Your task to perform on an android device: Open Google Image 0: 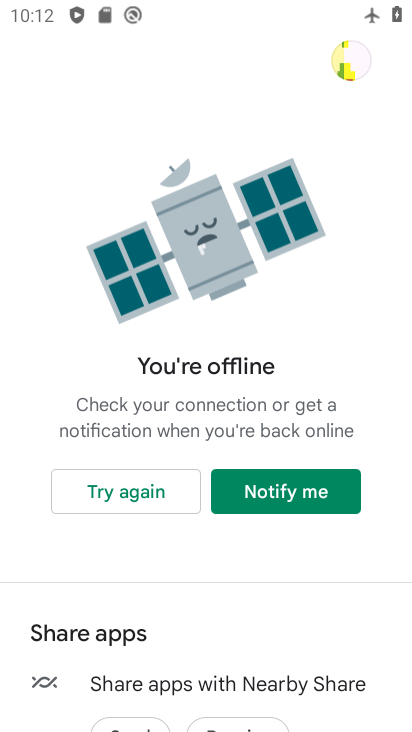
Step 0: press back button
Your task to perform on an android device: Open Google Image 1: 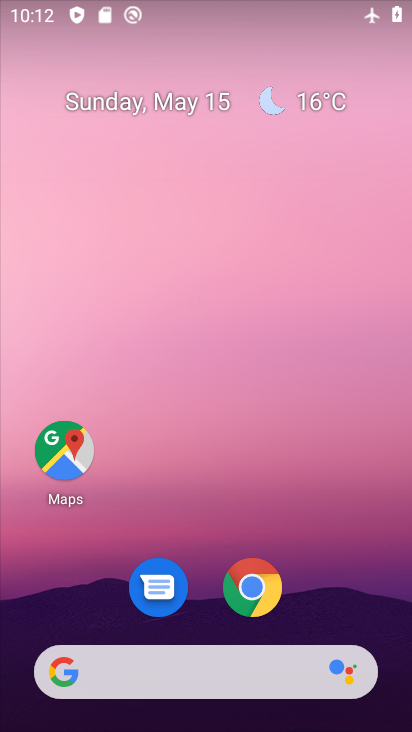
Step 1: click (254, 584)
Your task to perform on an android device: Open Google Image 2: 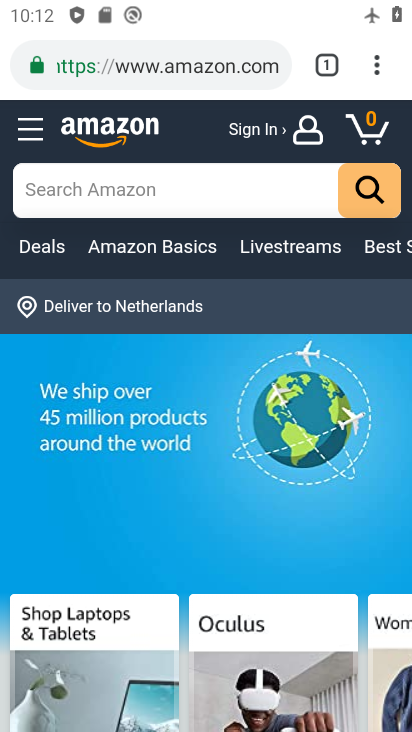
Step 2: click (171, 69)
Your task to perform on an android device: Open Google Image 3: 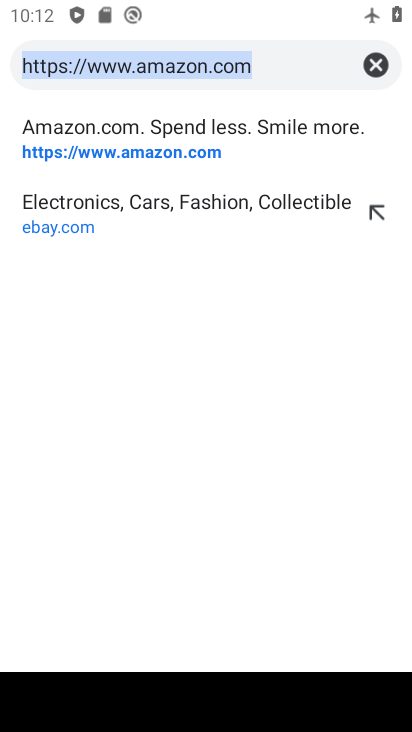
Step 3: click (380, 64)
Your task to perform on an android device: Open Google Image 4: 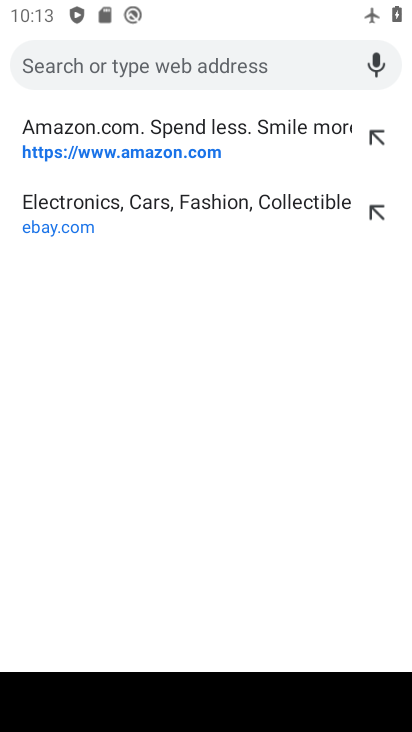
Step 4: type "Google"
Your task to perform on an android device: Open Google Image 5: 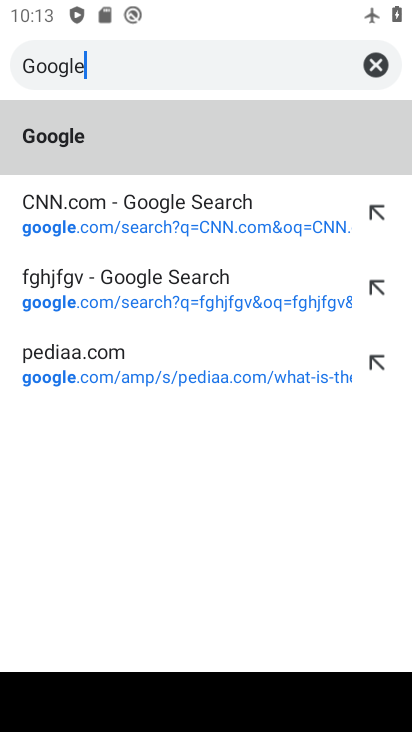
Step 5: type ""
Your task to perform on an android device: Open Google Image 6: 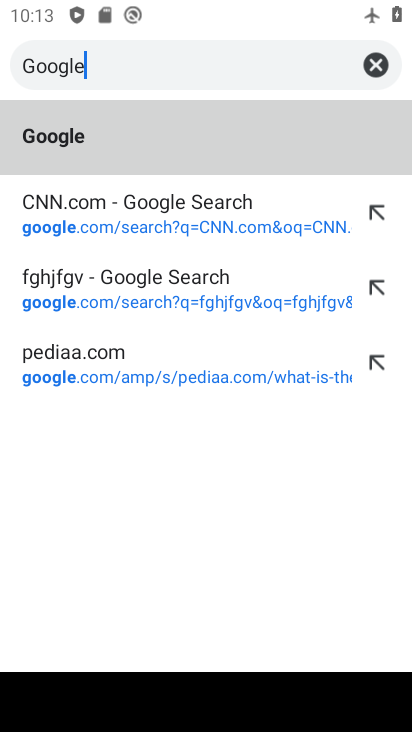
Step 6: click (107, 151)
Your task to perform on an android device: Open Google Image 7: 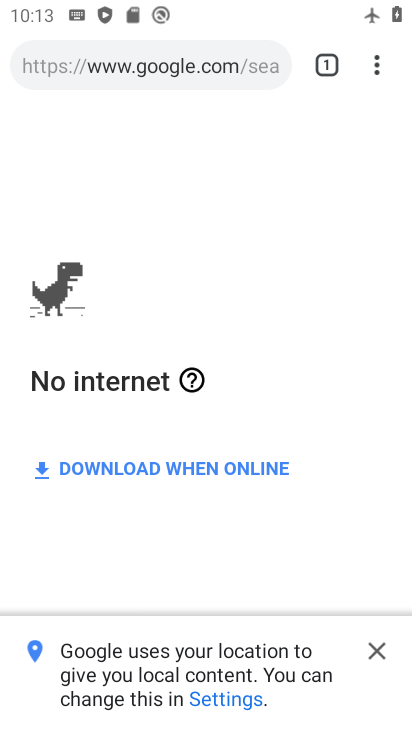
Step 7: task complete